Your task to perform on an android device: Open Chrome and go to settings Image 0: 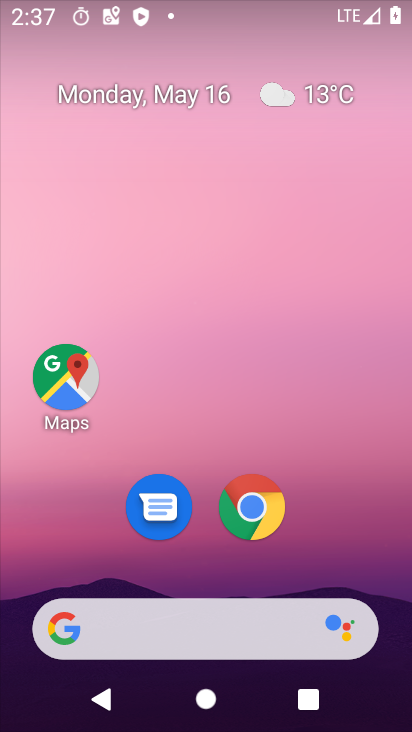
Step 0: drag from (380, 559) to (358, 159)
Your task to perform on an android device: Open Chrome and go to settings Image 1: 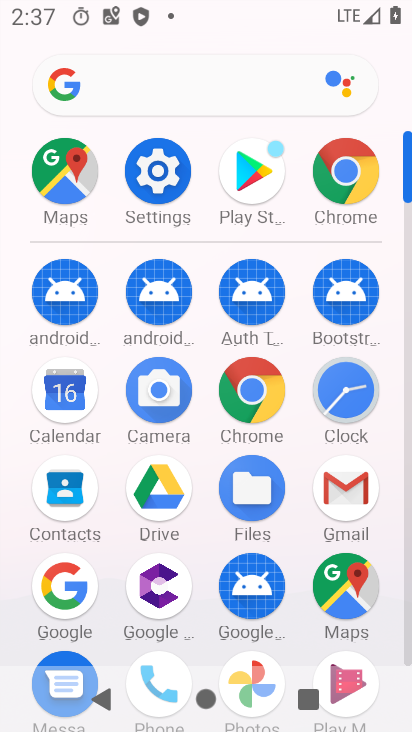
Step 1: click (273, 415)
Your task to perform on an android device: Open Chrome and go to settings Image 2: 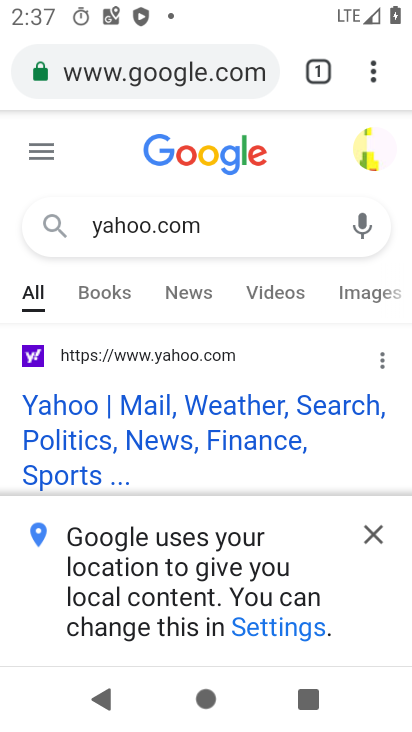
Step 2: click (372, 78)
Your task to perform on an android device: Open Chrome and go to settings Image 3: 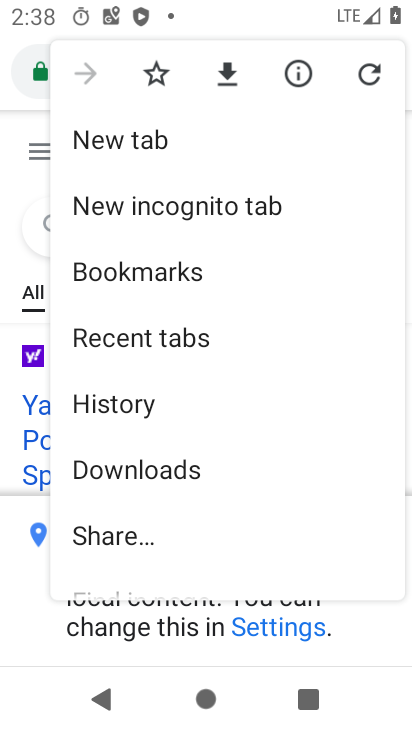
Step 3: drag from (295, 491) to (311, 355)
Your task to perform on an android device: Open Chrome and go to settings Image 4: 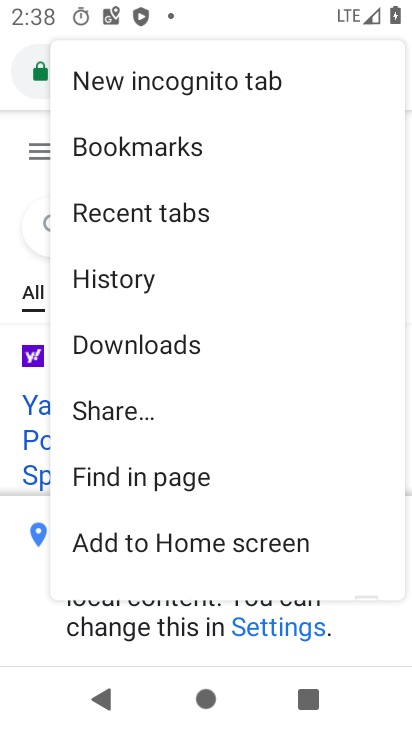
Step 4: drag from (311, 521) to (321, 323)
Your task to perform on an android device: Open Chrome and go to settings Image 5: 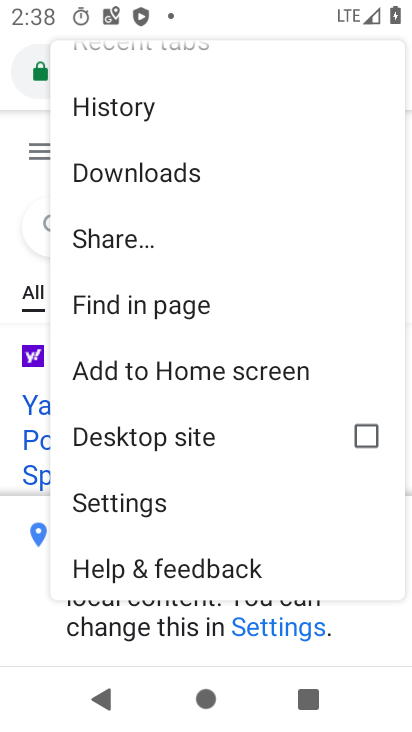
Step 5: drag from (292, 518) to (326, 307)
Your task to perform on an android device: Open Chrome and go to settings Image 6: 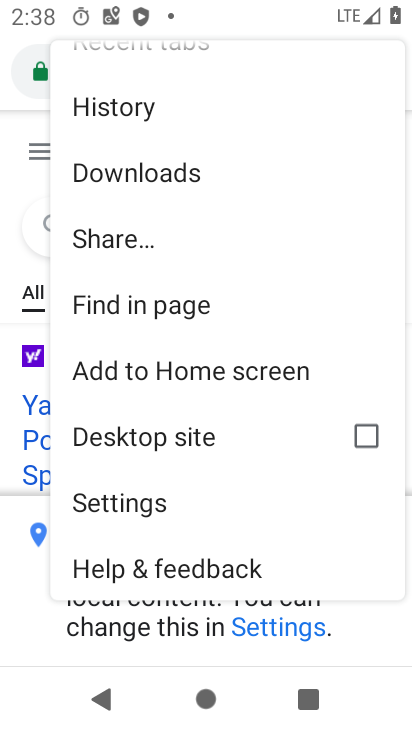
Step 6: click (153, 503)
Your task to perform on an android device: Open Chrome and go to settings Image 7: 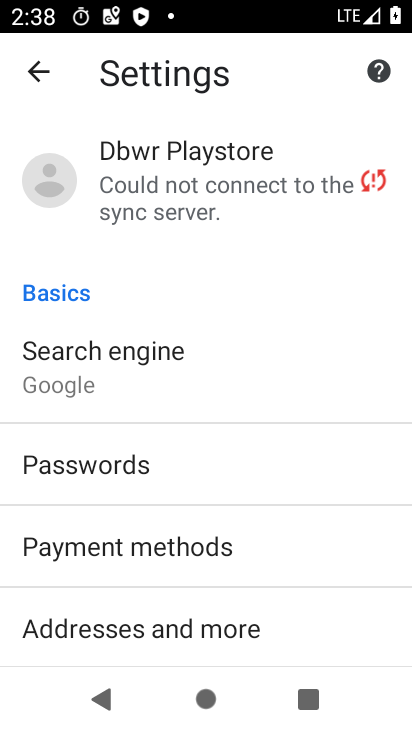
Step 7: task complete